Your task to perform on an android device: toggle show notifications on the lock screen Image 0: 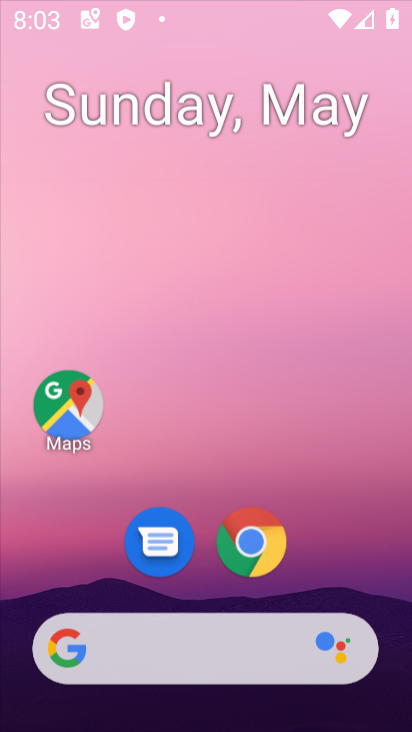
Step 0: press back button
Your task to perform on an android device: toggle show notifications on the lock screen Image 1: 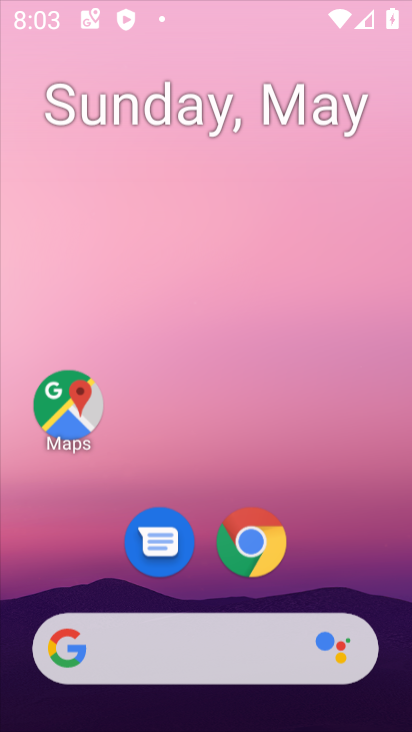
Step 1: press home button
Your task to perform on an android device: toggle show notifications on the lock screen Image 2: 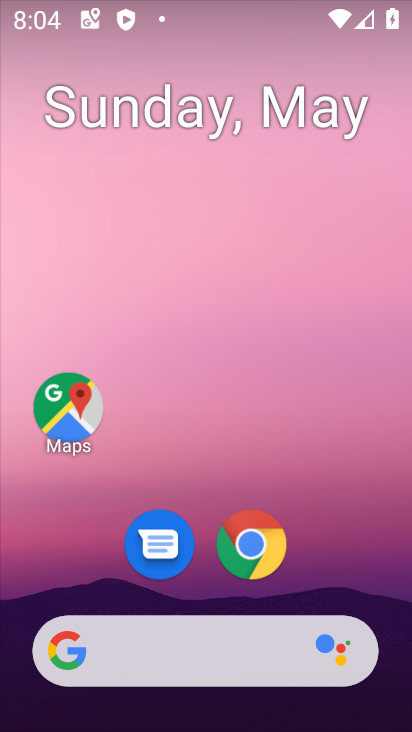
Step 2: drag from (339, 558) to (229, 1)
Your task to perform on an android device: toggle show notifications on the lock screen Image 3: 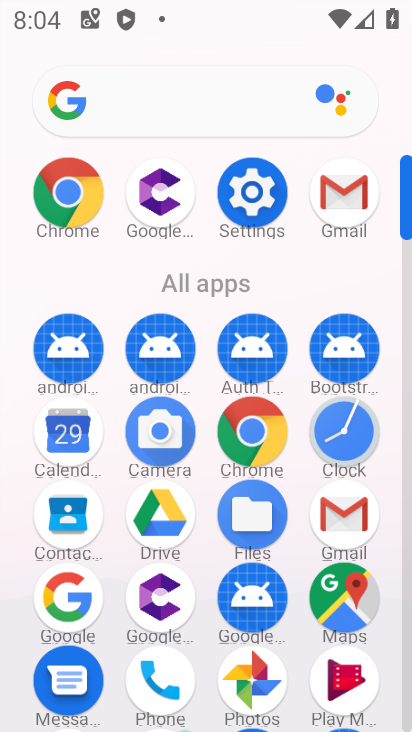
Step 3: drag from (4, 561) to (2, 251)
Your task to perform on an android device: toggle show notifications on the lock screen Image 4: 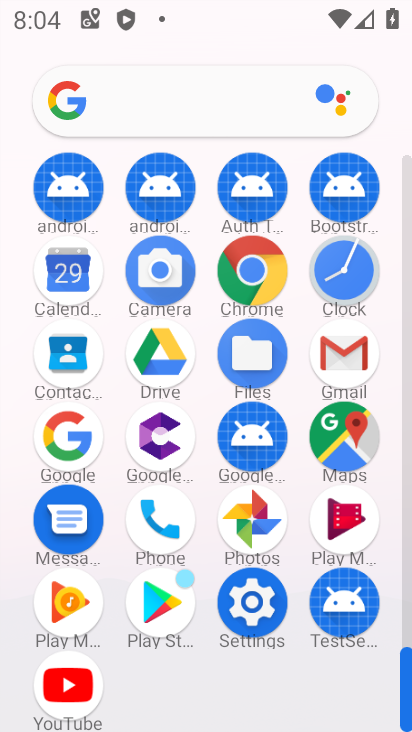
Step 4: click (253, 600)
Your task to perform on an android device: toggle show notifications on the lock screen Image 5: 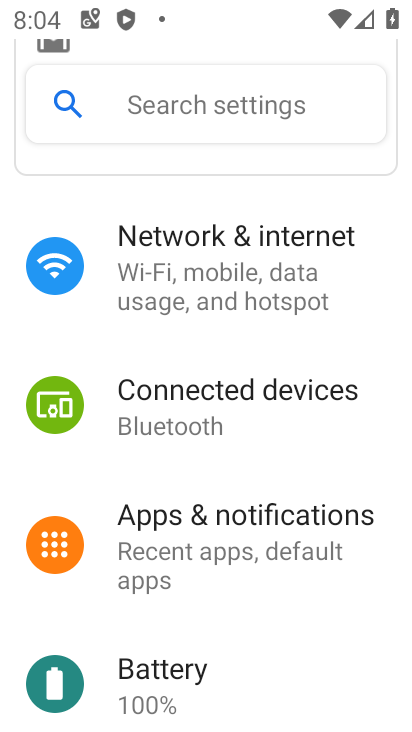
Step 5: click (242, 554)
Your task to perform on an android device: toggle show notifications on the lock screen Image 6: 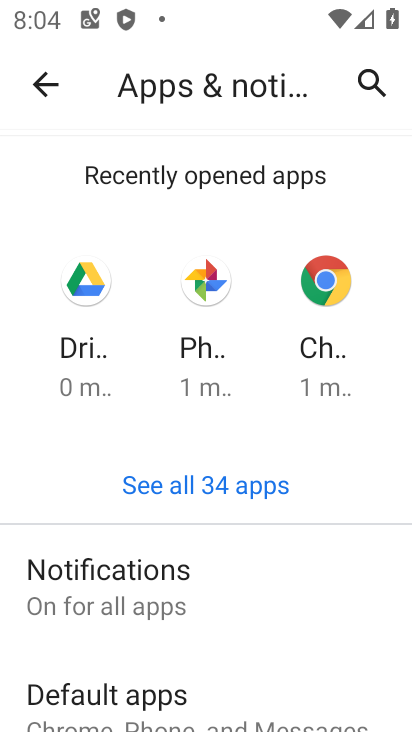
Step 6: click (177, 605)
Your task to perform on an android device: toggle show notifications on the lock screen Image 7: 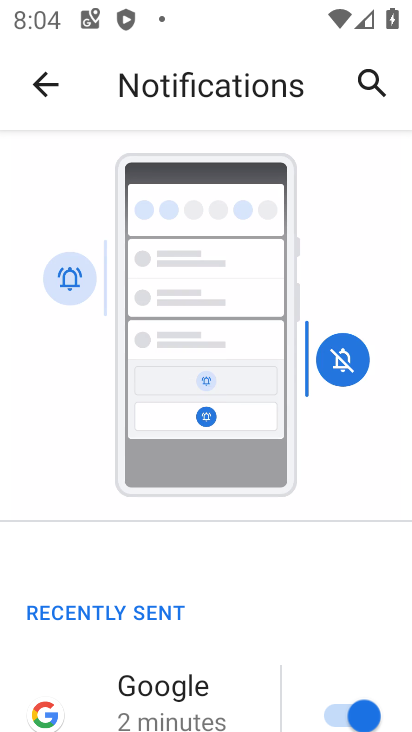
Step 7: drag from (21, 633) to (32, 166)
Your task to perform on an android device: toggle show notifications on the lock screen Image 8: 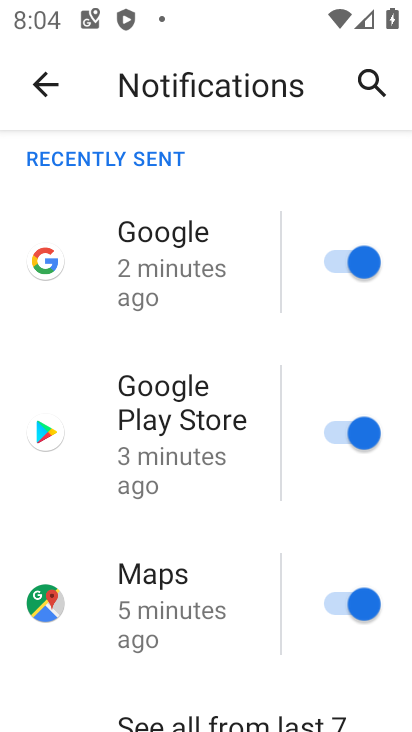
Step 8: drag from (183, 581) to (199, 168)
Your task to perform on an android device: toggle show notifications on the lock screen Image 9: 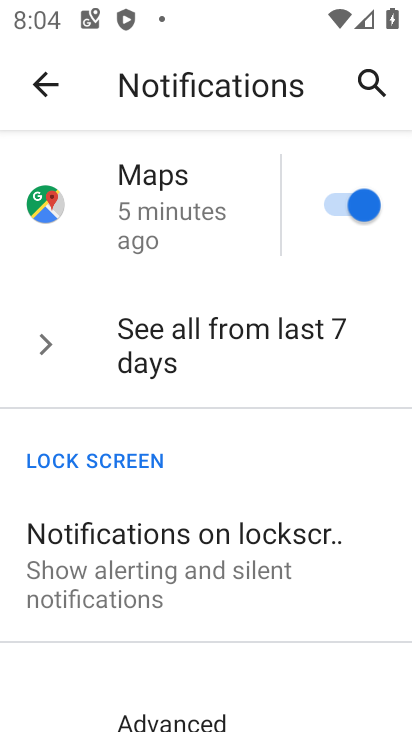
Step 9: drag from (251, 579) to (228, 149)
Your task to perform on an android device: toggle show notifications on the lock screen Image 10: 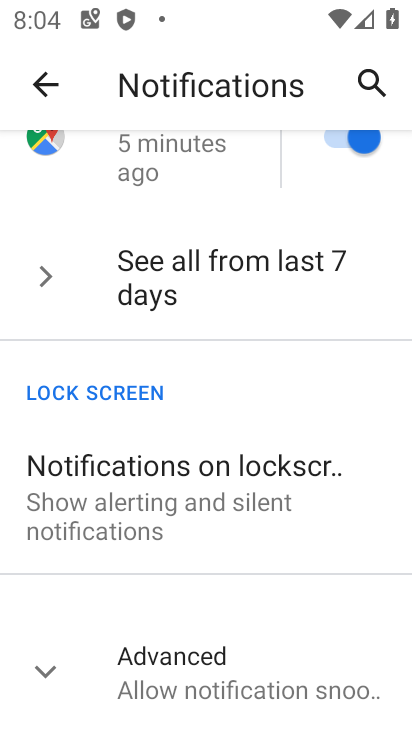
Step 10: click (20, 653)
Your task to perform on an android device: toggle show notifications on the lock screen Image 11: 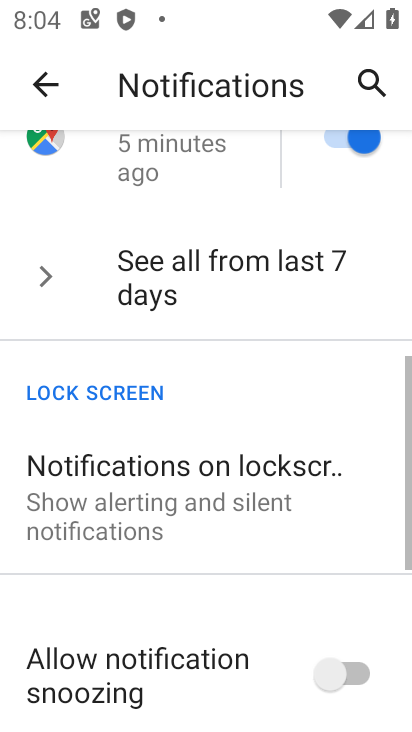
Step 11: drag from (264, 620) to (255, 185)
Your task to perform on an android device: toggle show notifications on the lock screen Image 12: 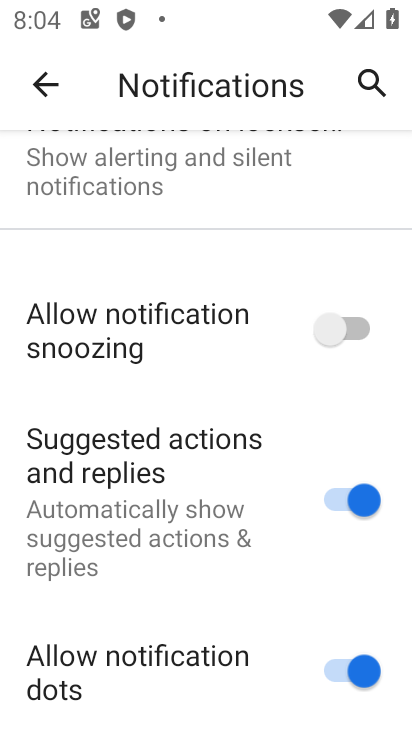
Step 12: click (244, 170)
Your task to perform on an android device: toggle show notifications on the lock screen Image 13: 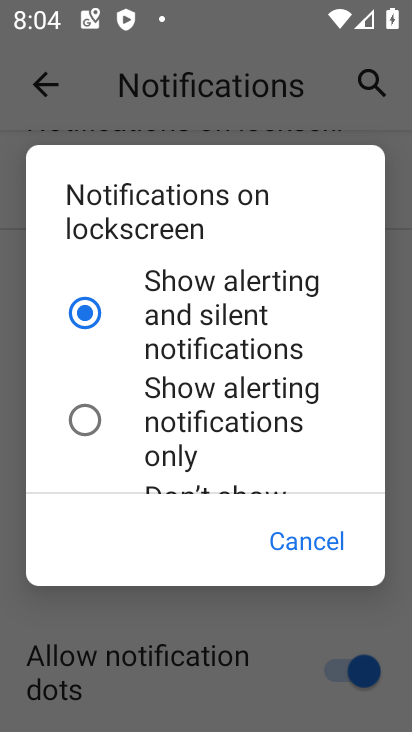
Step 13: drag from (201, 441) to (189, 165)
Your task to perform on an android device: toggle show notifications on the lock screen Image 14: 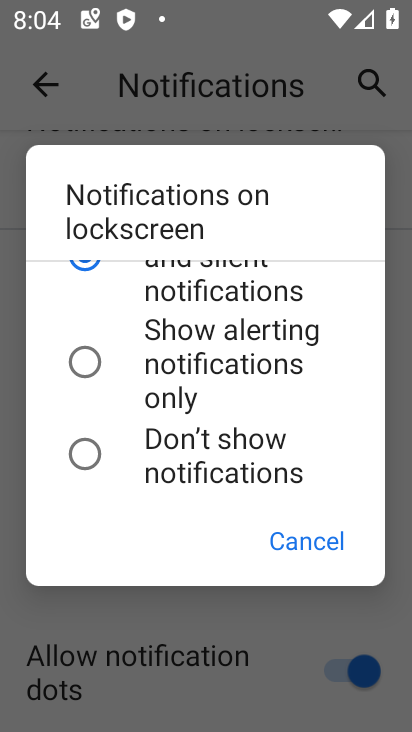
Step 14: click (95, 372)
Your task to perform on an android device: toggle show notifications on the lock screen Image 15: 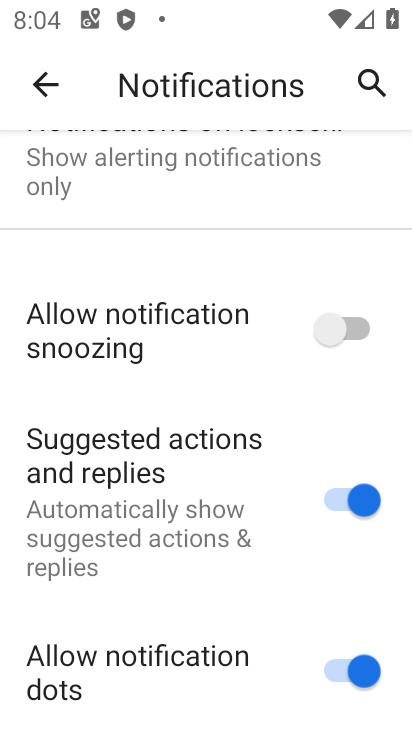
Step 15: task complete